Your task to perform on an android device: open device folders in google photos Image 0: 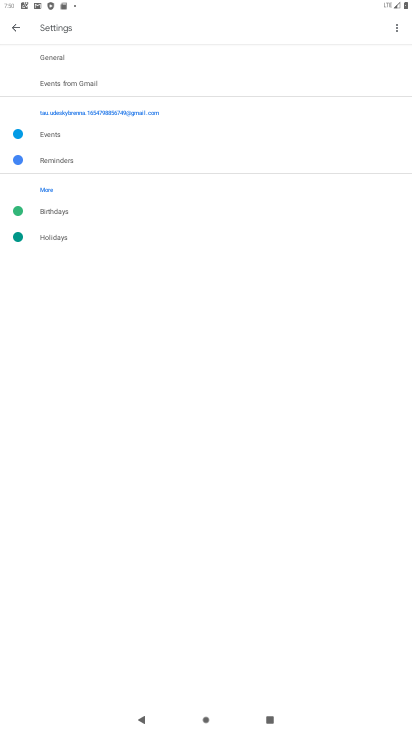
Step 0: task complete